Your task to perform on an android device: Go to sound settings Image 0: 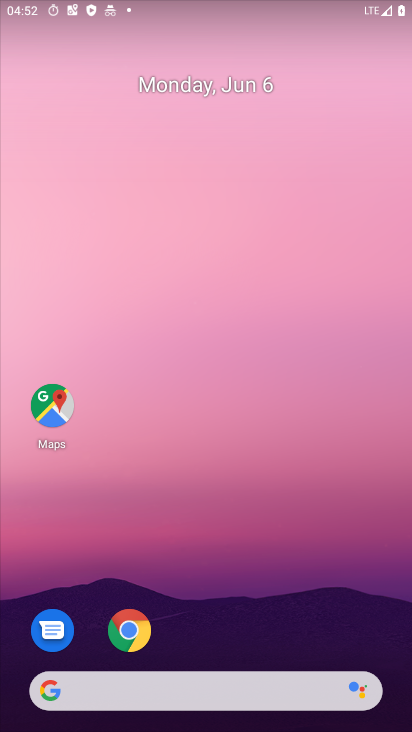
Step 0: drag from (266, 605) to (333, 45)
Your task to perform on an android device: Go to sound settings Image 1: 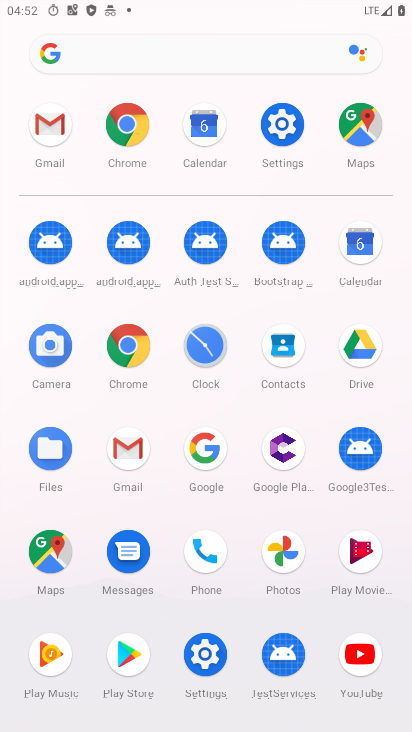
Step 1: click (286, 117)
Your task to perform on an android device: Go to sound settings Image 2: 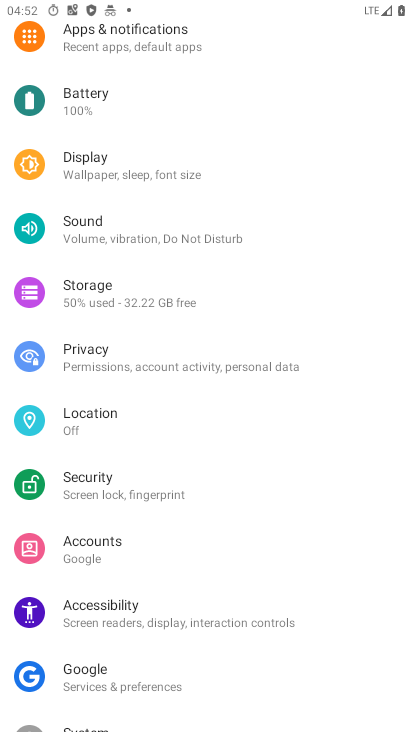
Step 2: click (95, 228)
Your task to perform on an android device: Go to sound settings Image 3: 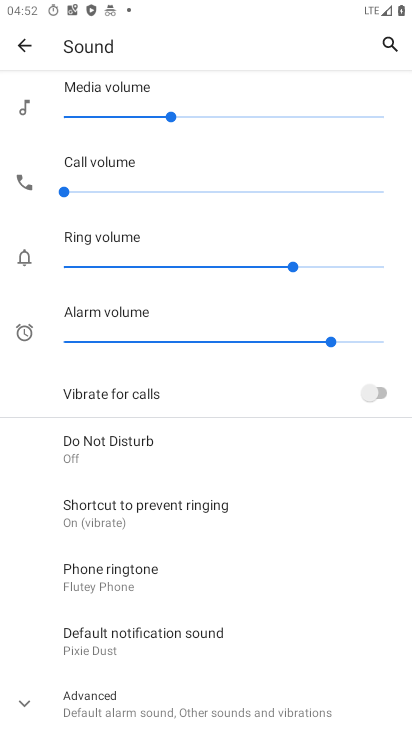
Step 3: task complete